Your task to perform on an android device: move an email to a new category in the gmail app Image 0: 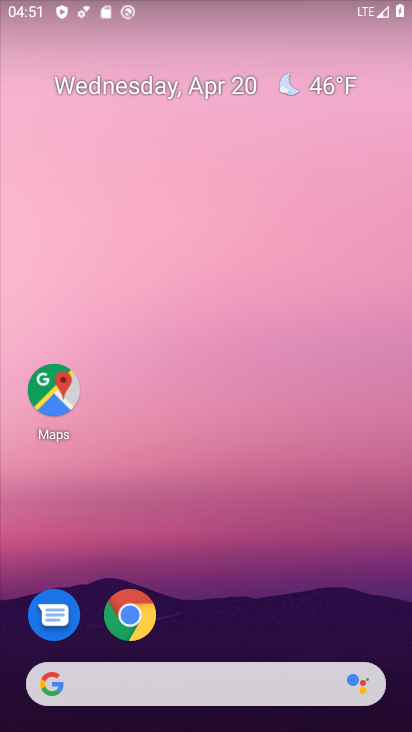
Step 0: drag from (191, 611) to (301, 91)
Your task to perform on an android device: move an email to a new category in the gmail app Image 1: 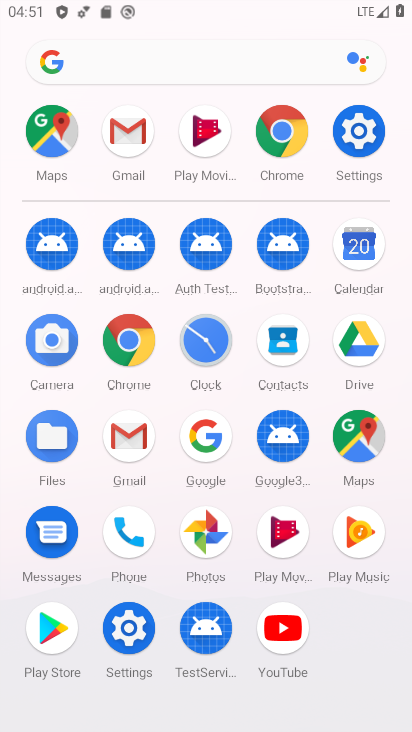
Step 1: click (130, 126)
Your task to perform on an android device: move an email to a new category in the gmail app Image 2: 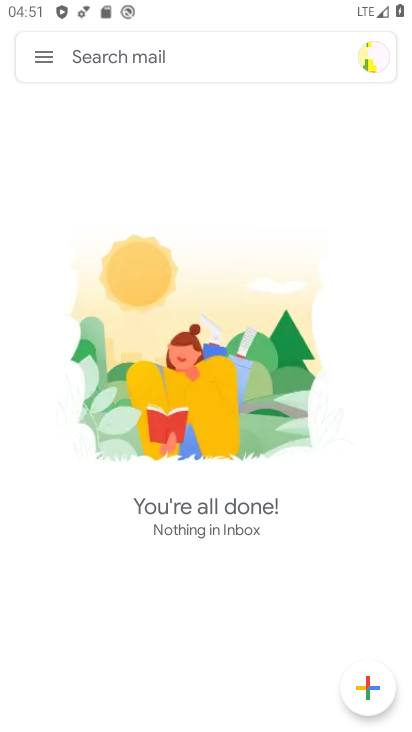
Step 2: click (41, 52)
Your task to perform on an android device: move an email to a new category in the gmail app Image 3: 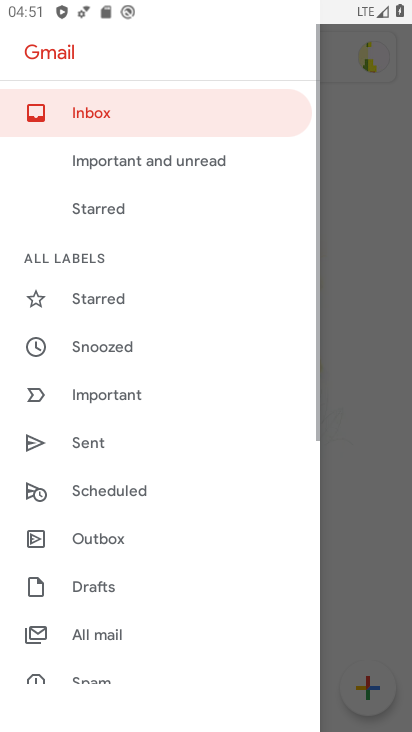
Step 3: click (117, 642)
Your task to perform on an android device: move an email to a new category in the gmail app Image 4: 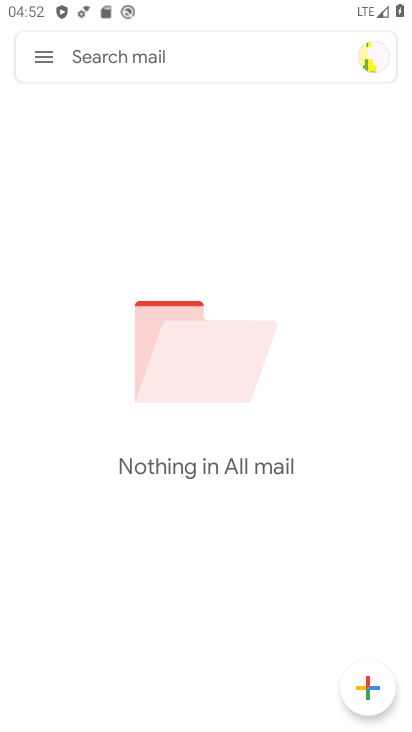
Step 4: task complete